Your task to perform on an android device: check storage Image 0: 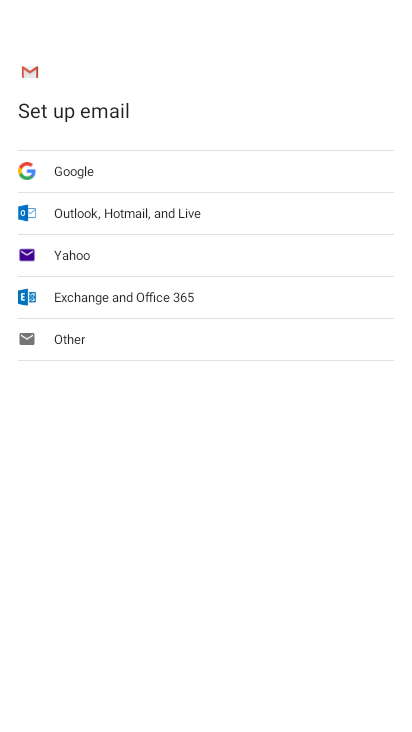
Step 0: press home button
Your task to perform on an android device: check storage Image 1: 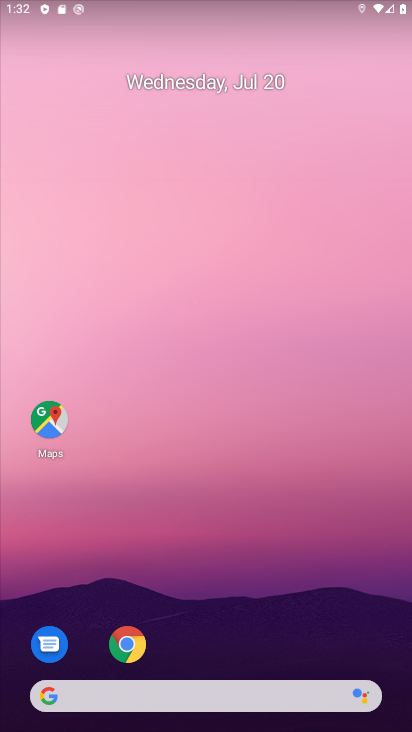
Step 1: drag from (322, 583) to (331, 43)
Your task to perform on an android device: check storage Image 2: 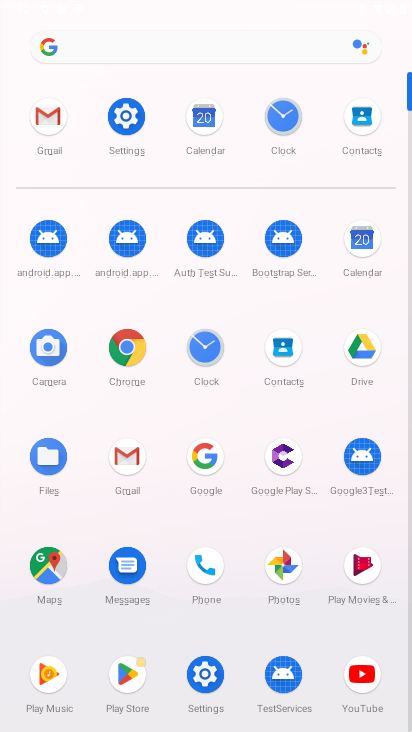
Step 2: click (125, 135)
Your task to perform on an android device: check storage Image 3: 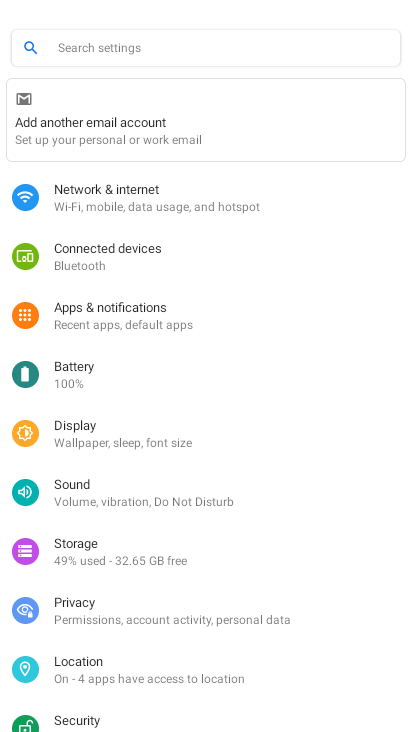
Step 3: click (91, 546)
Your task to perform on an android device: check storage Image 4: 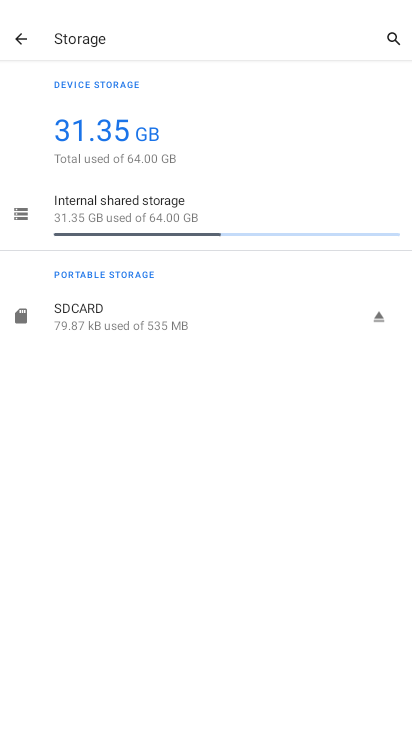
Step 4: task complete